Your task to perform on an android device: check data usage Image 0: 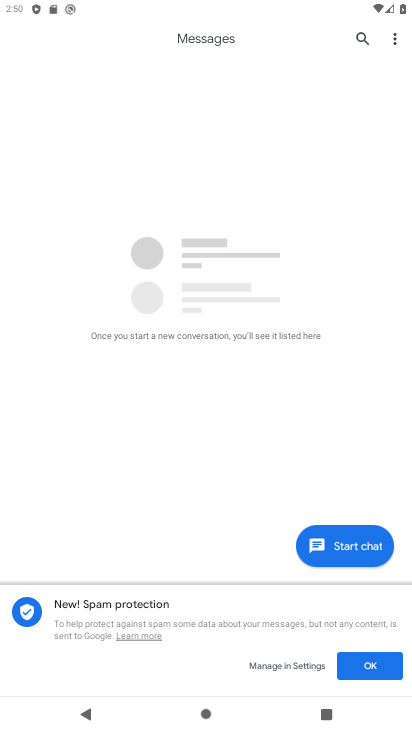
Step 0: press home button
Your task to perform on an android device: check data usage Image 1: 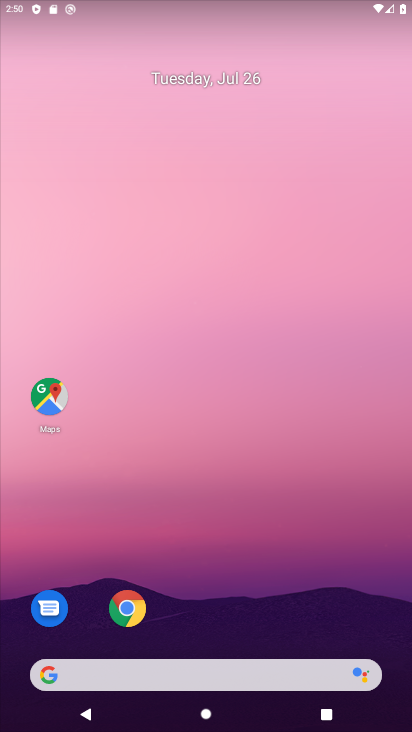
Step 1: drag from (192, 555) to (194, 5)
Your task to perform on an android device: check data usage Image 2: 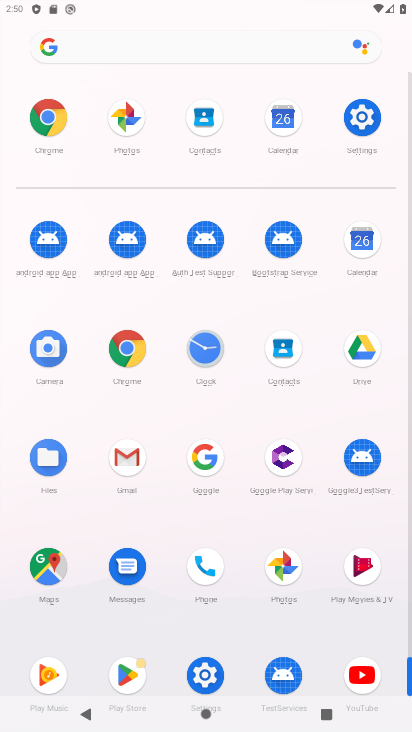
Step 2: drag from (231, 584) to (220, 242)
Your task to perform on an android device: check data usage Image 3: 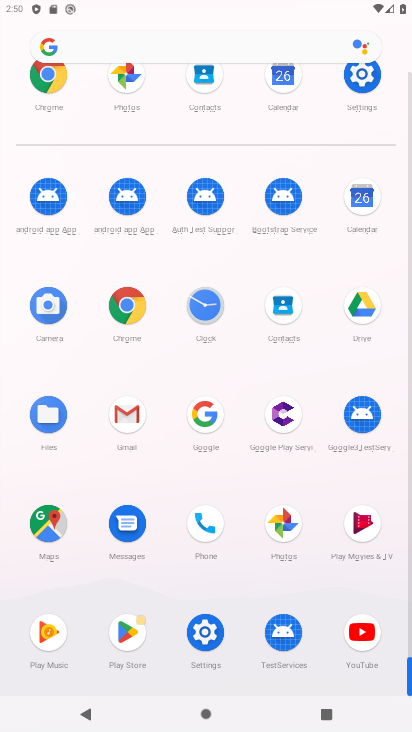
Step 3: click (200, 629)
Your task to perform on an android device: check data usage Image 4: 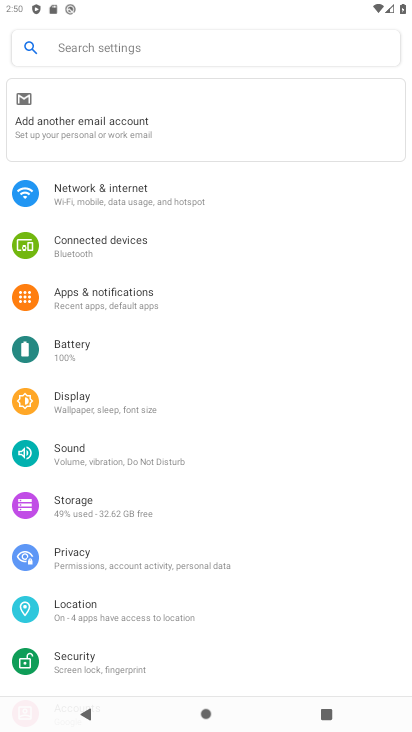
Step 4: click (142, 192)
Your task to perform on an android device: check data usage Image 5: 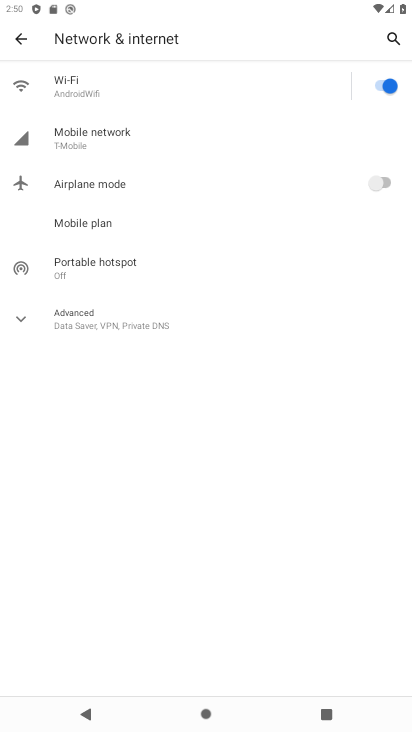
Step 5: click (109, 136)
Your task to perform on an android device: check data usage Image 6: 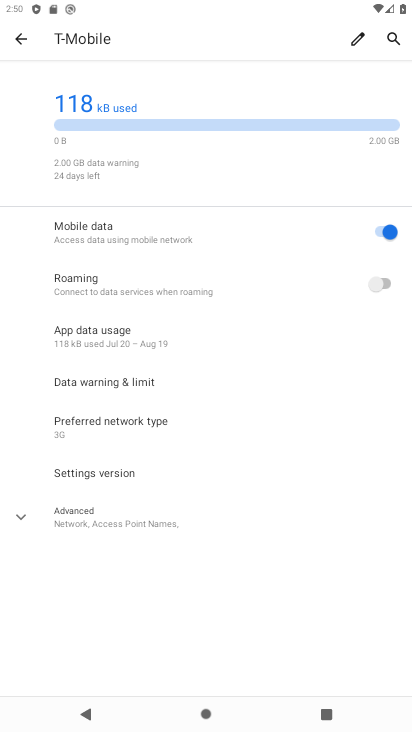
Step 6: click (114, 334)
Your task to perform on an android device: check data usage Image 7: 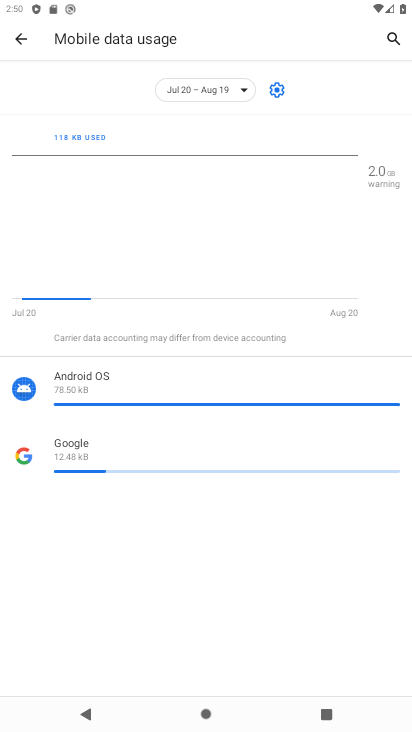
Step 7: task complete